Your task to perform on an android device: toggle notifications settings in the gmail app Image 0: 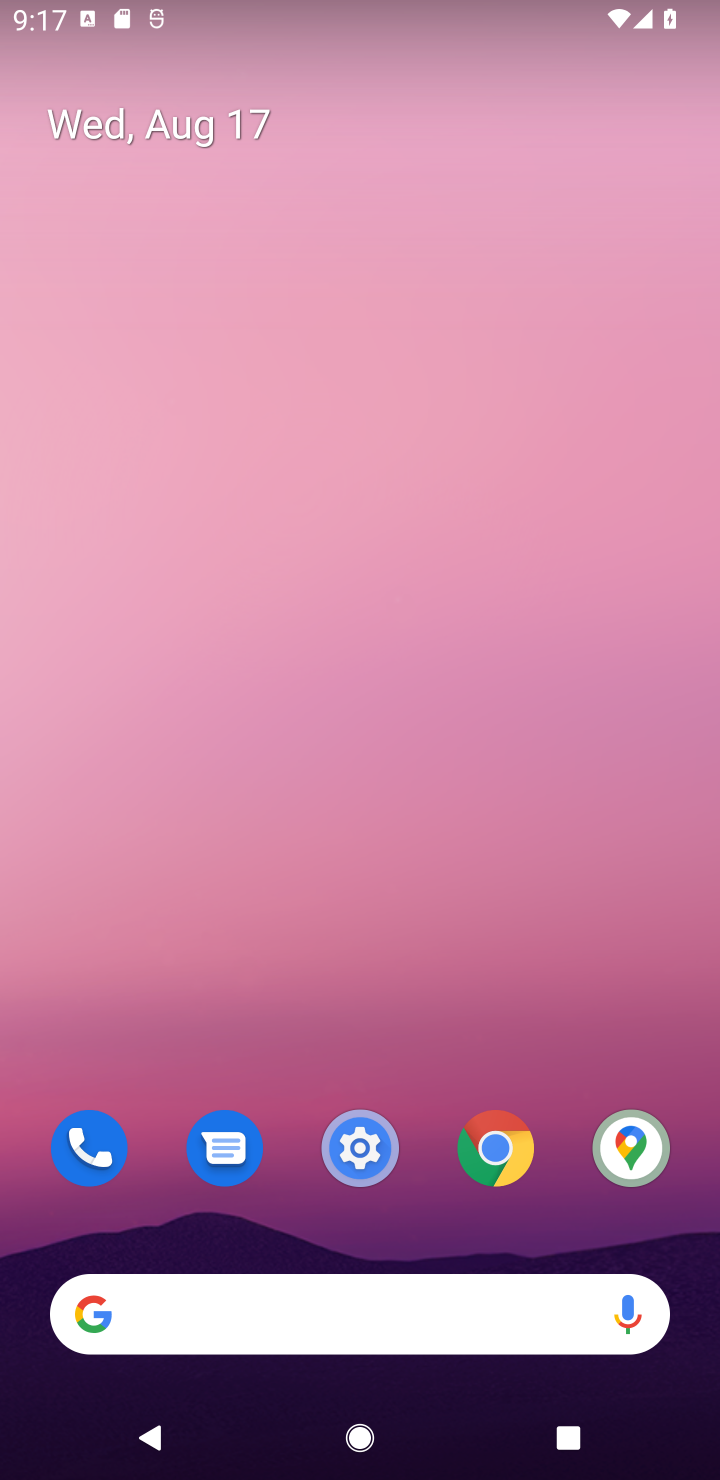
Step 0: drag from (564, 1245) to (595, 292)
Your task to perform on an android device: toggle notifications settings in the gmail app Image 1: 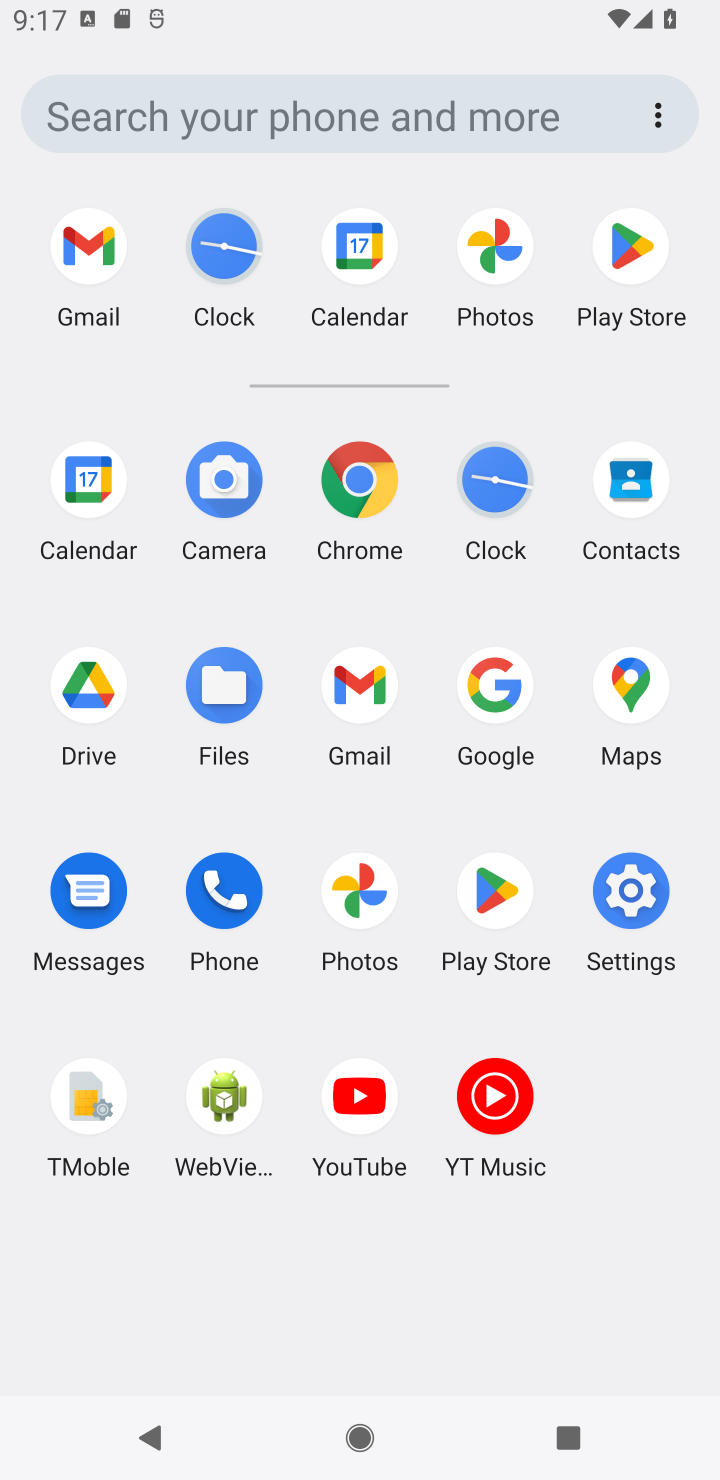
Step 1: click (355, 689)
Your task to perform on an android device: toggle notifications settings in the gmail app Image 2: 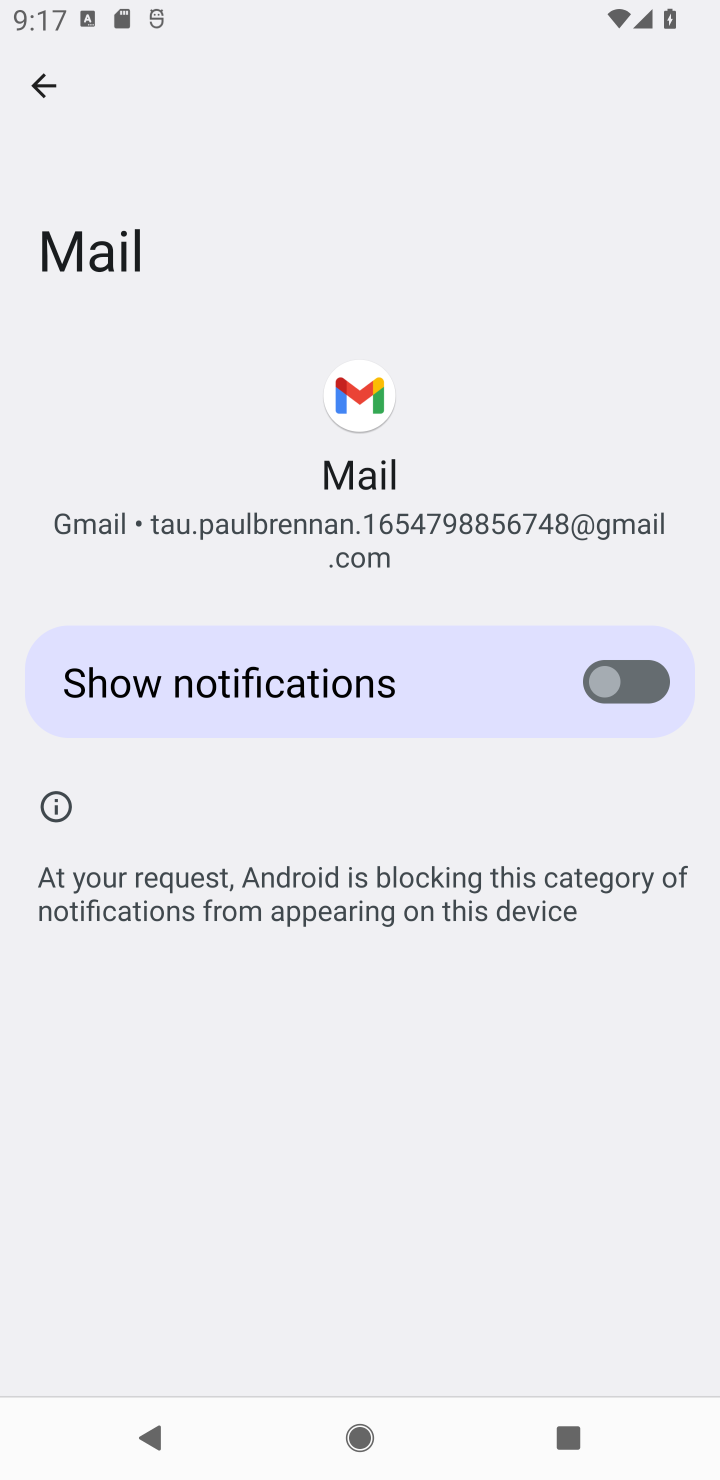
Step 2: click (656, 674)
Your task to perform on an android device: toggle notifications settings in the gmail app Image 3: 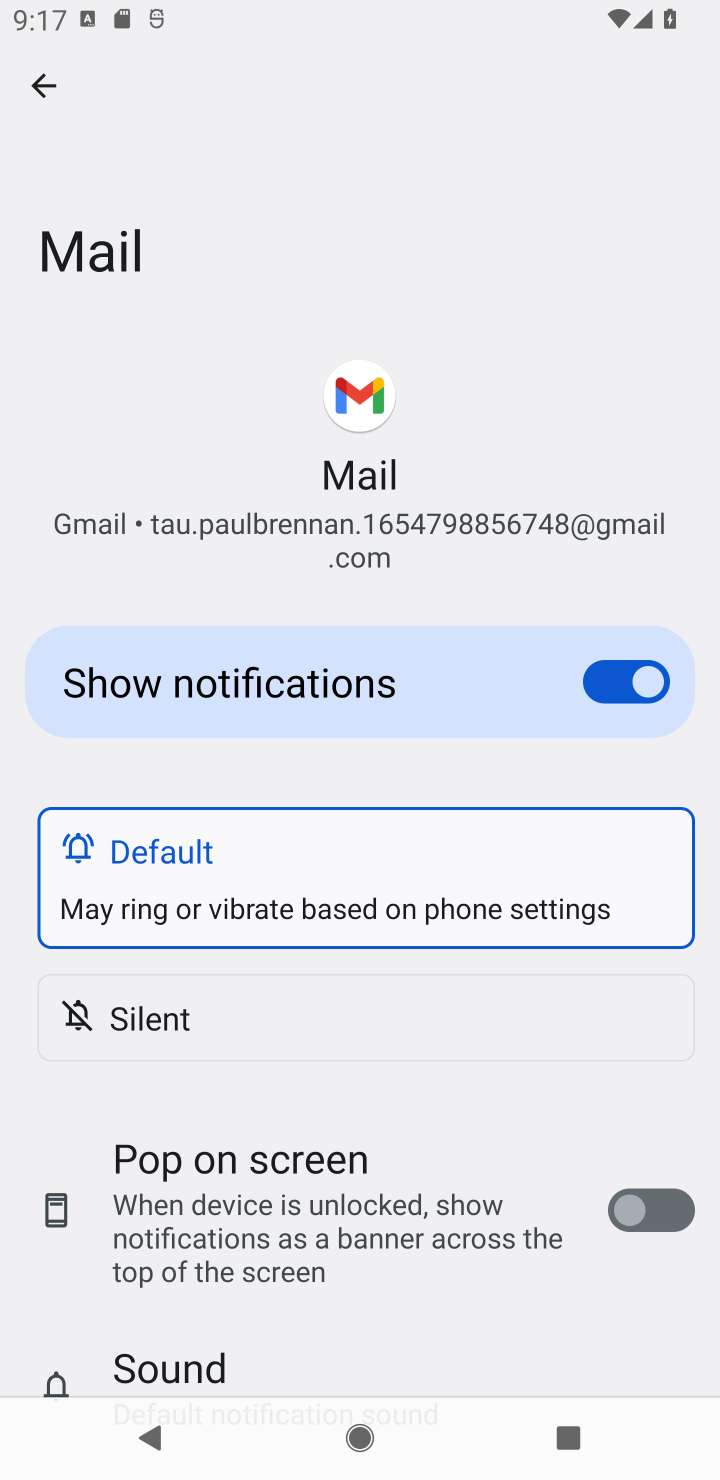
Step 3: task complete